Your task to perform on an android device: Go to Wikipedia Image 0: 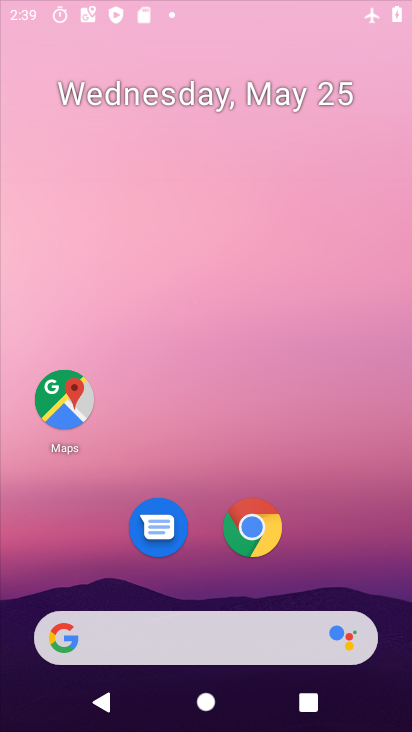
Step 0: click (243, 209)
Your task to perform on an android device: Go to Wikipedia Image 1: 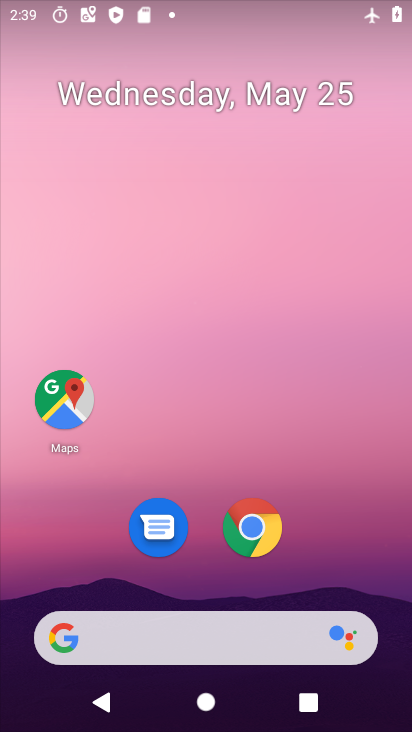
Step 1: drag from (200, 580) to (255, 154)
Your task to perform on an android device: Go to Wikipedia Image 2: 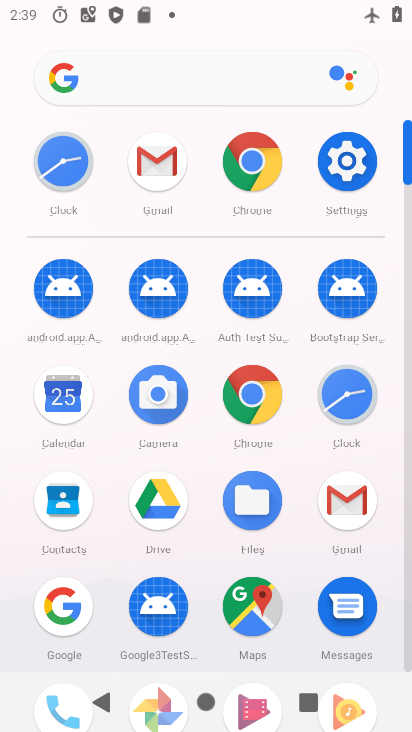
Step 2: click (212, 80)
Your task to perform on an android device: Go to Wikipedia Image 3: 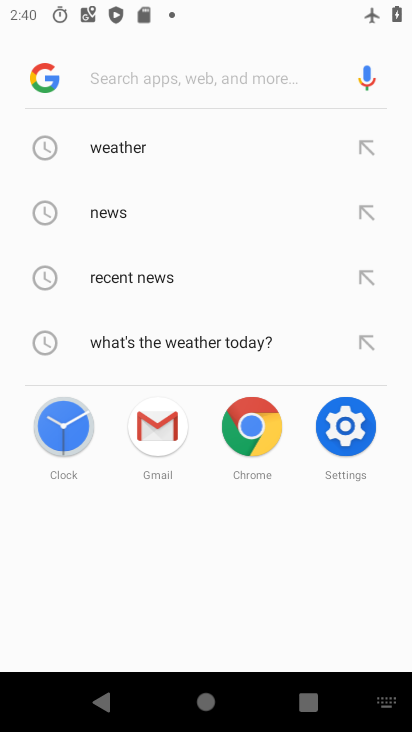
Step 3: type "wikipedia"
Your task to perform on an android device: Go to Wikipedia Image 4: 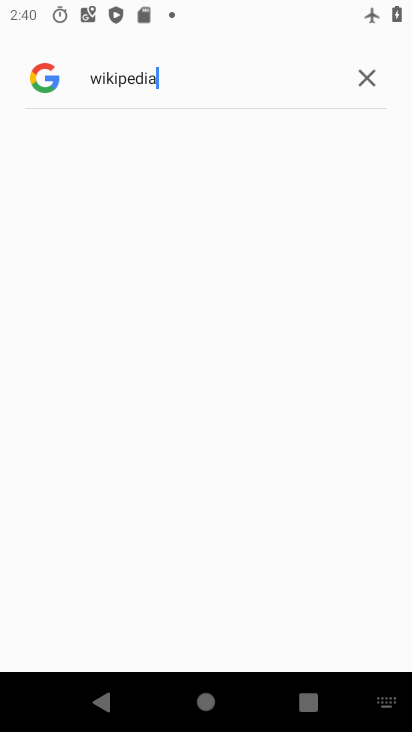
Step 4: task complete